Your task to perform on an android device: Open maps Image 0: 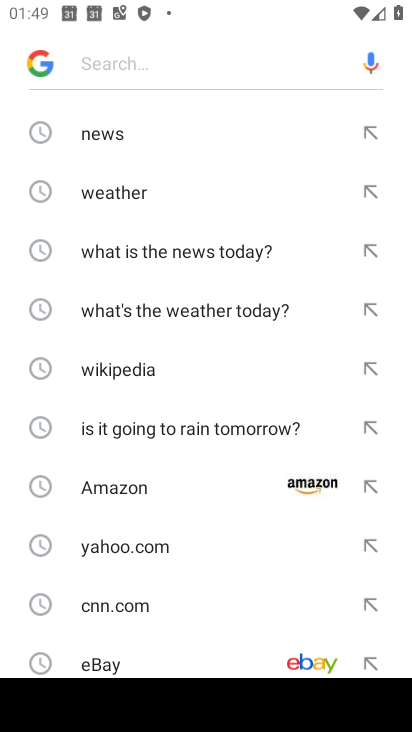
Step 0: press home button
Your task to perform on an android device: Open maps Image 1: 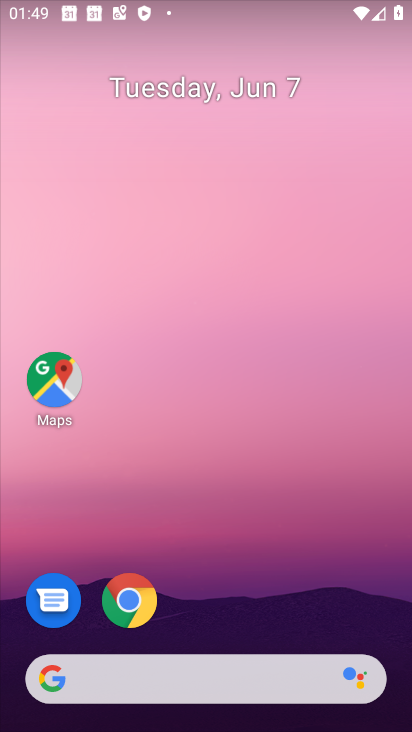
Step 1: drag from (211, 717) to (210, 134)
Your task to perform on an android device: Open maps Image 2: 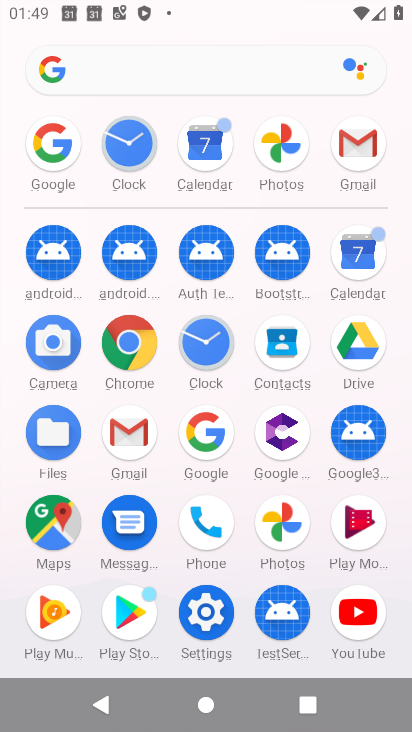
Step 2: click (45, 526)
Your task to perform on an android device: Open maps Image 3: 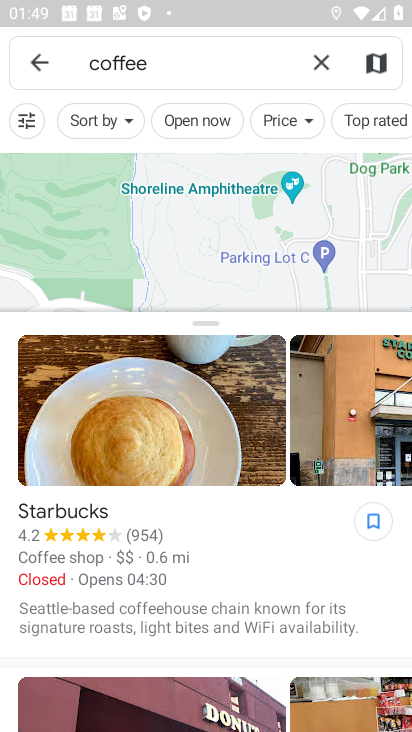
Step 3: task complete